Your task to perform on an android device: stop showing notifications on the lock screen Image 0: 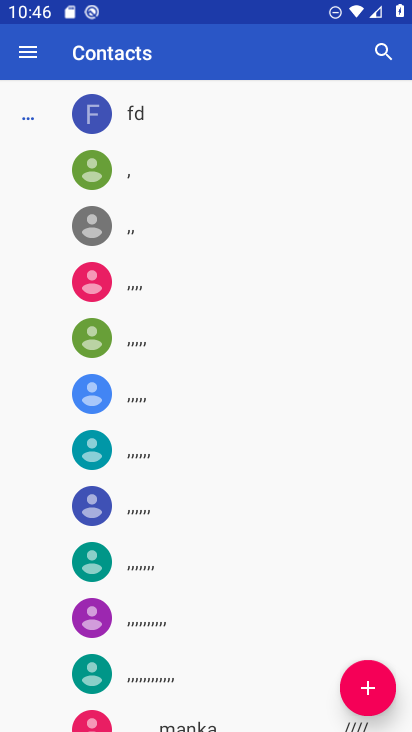
Step 0: press home button
Your task to perform on an android device: stop showing notifications on the lock screen Image 1: 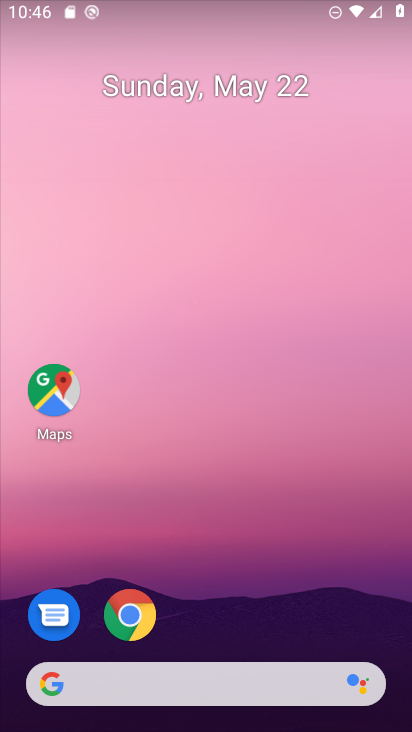
Step 1: drag from (269, 636) to (253, 66)
Your task to perform on an android device: stop showing notifications on the lock screen Image 2: 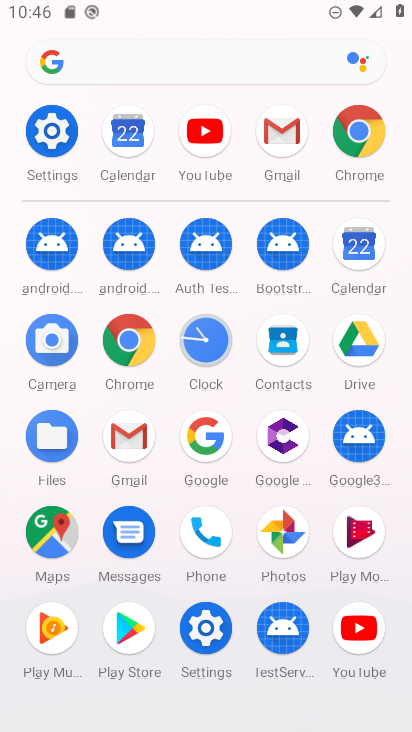
Step 2: click (60, 118)
Your task to perform on an android device: stop showing notifications on the lock screen Image 3: 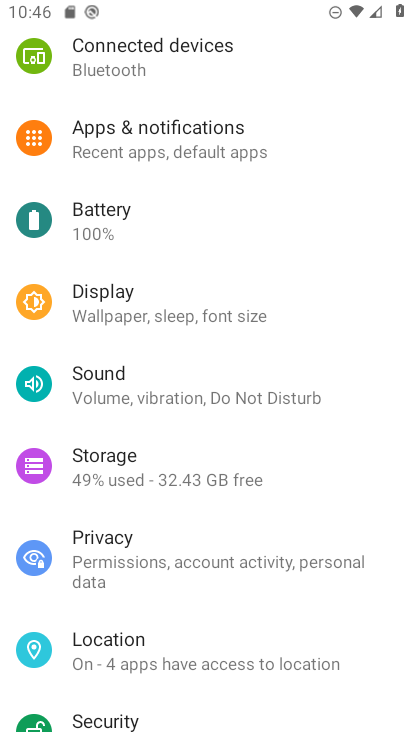
Step 3: click (194, 138)
Your task to perform on an android device: stop showing notifications on the lock screen Image 4: 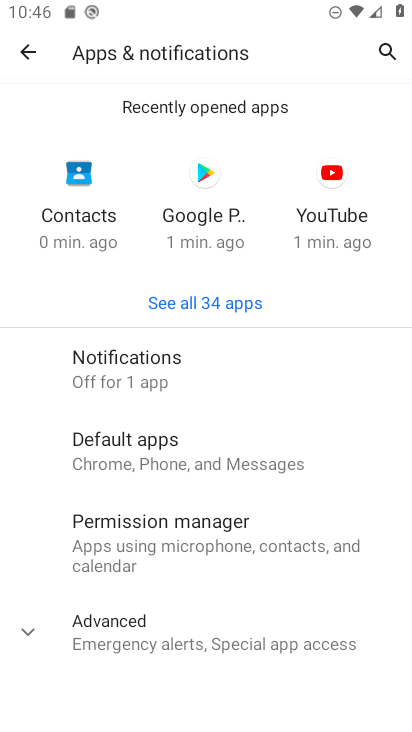
Step 4: click (185, 359)
Your task to perform on an android device: stop showing notifications on the lock screen Image 5: 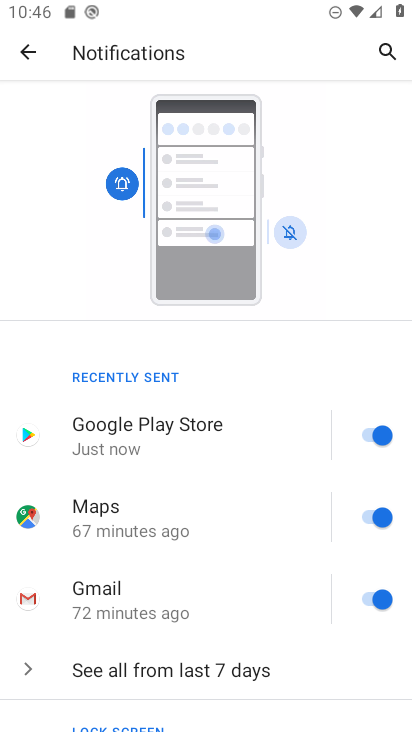
Step 5: drag from (205, 661) to (262, 209)
Your task to perform on an android device: stop showing notifications on the lock screen Image 6: 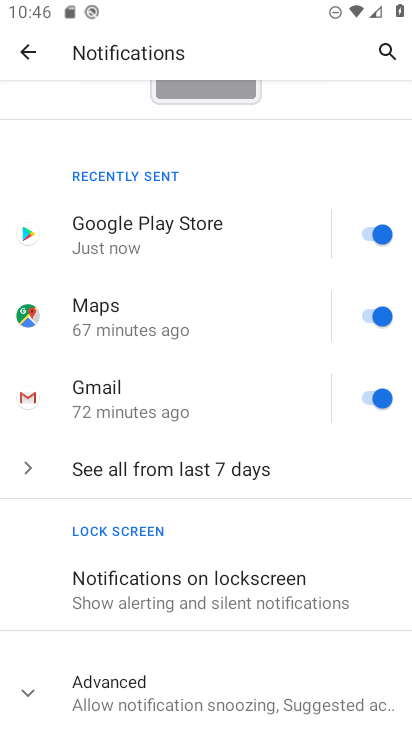
Step 6: click (188, 597)
Your task to perform on an android device: stop showing notifications on the lock screen Image 7: 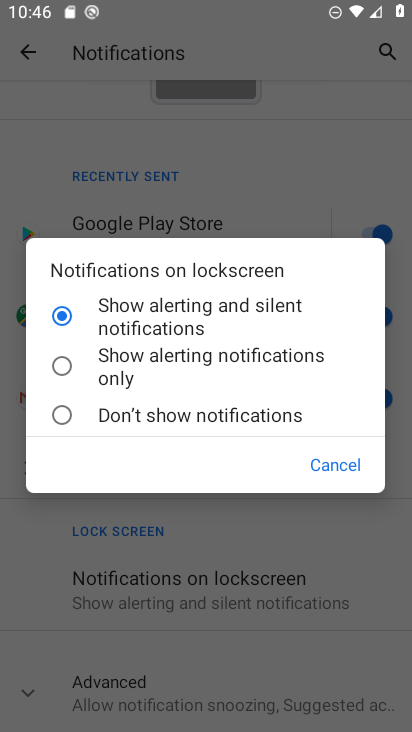
Step 7: click (189, 412)
Your task to perform on an android device: stop showing notifications on the lock screen Image 8: 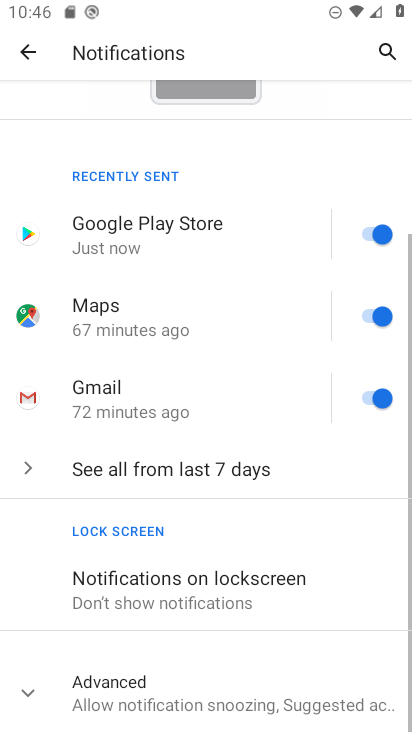
Step 8: task complete